Your task to perform on an android device: add a label to a message in the gmail app Image 0: 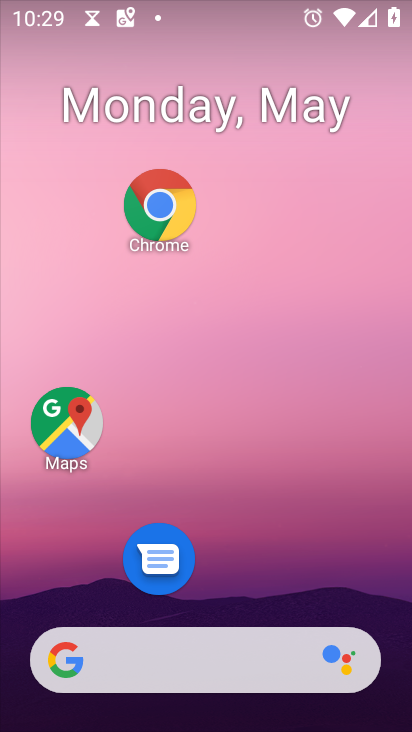
Step 0: drag from (248, 714) to (143, 244)
Your task to perform on an android device: add a label to a message in the gmail app Image 1: 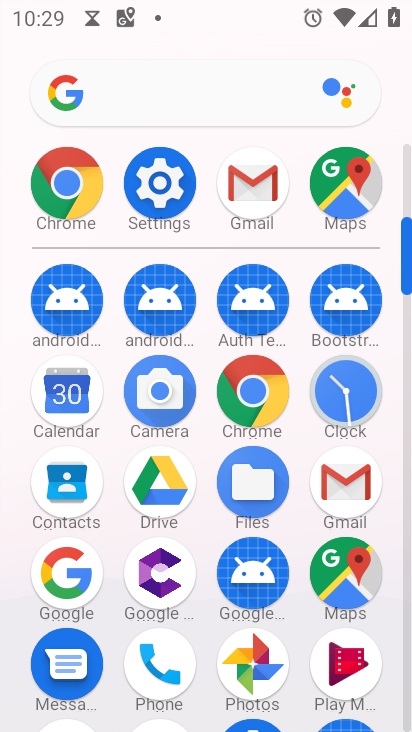
Step 1: click (406, 331)
Your task to perform on an android device: add a label to a message in the gmail app Image 2: 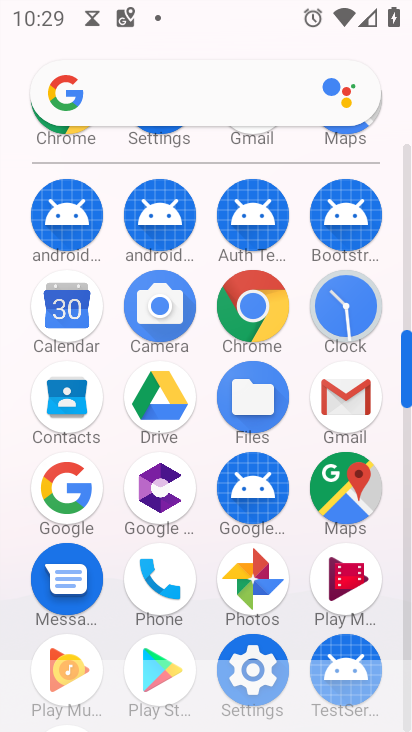
Step 2: click (347, 406)
Your task to perform on an android device: add a label to a message in the gmail app Image 3: 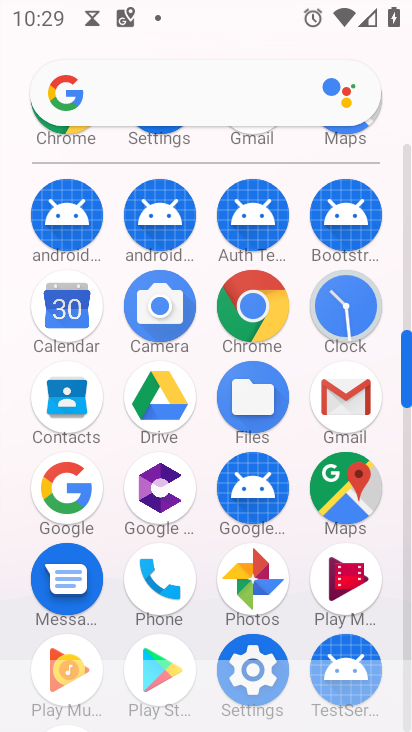
Step 3: click (347, 406)
Your task to perform on an android device: add a label to a message in the gmail app Image 4: 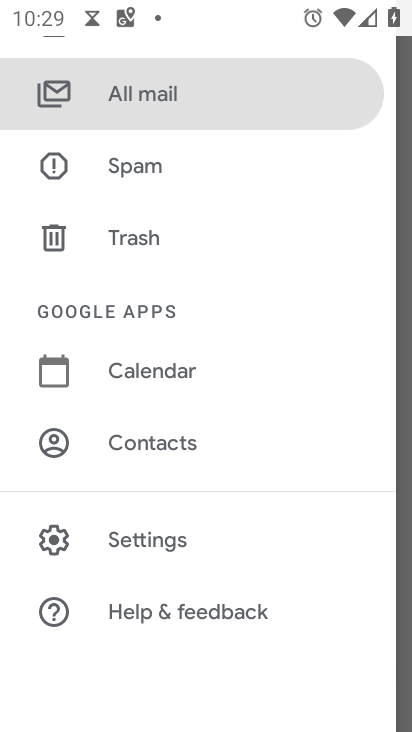
Step 4: press back button
Your task to perform on an android device: add a label to a message in the gmail app Image 5: 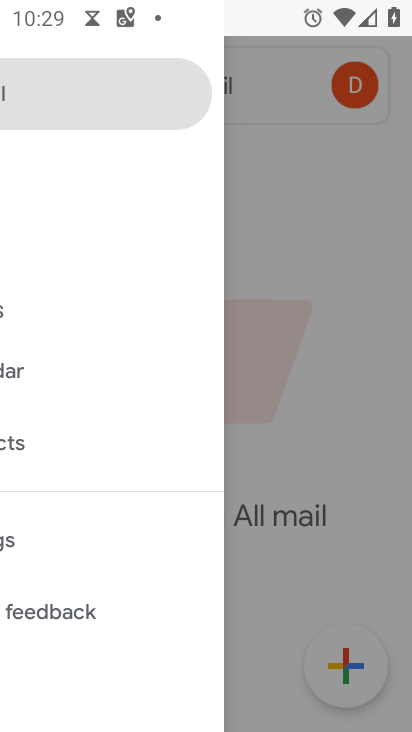
Step 5: press back button
Your task to perform on an android device: add a label to a message in the gmail app Image 6: 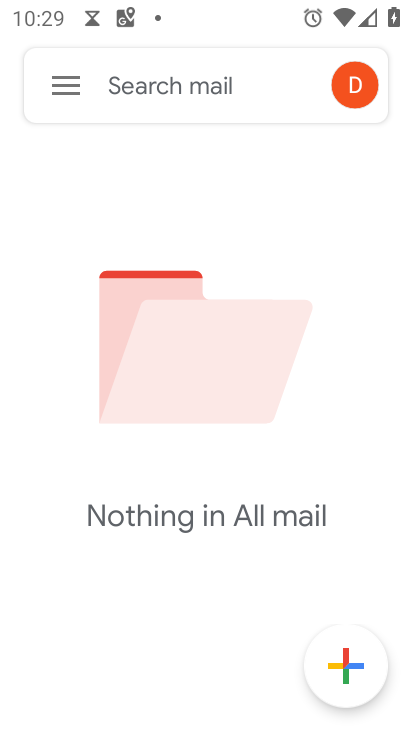
Step 6: press back button
Your task to perform on an android device: add a label to a message in the gmail app Image 7: 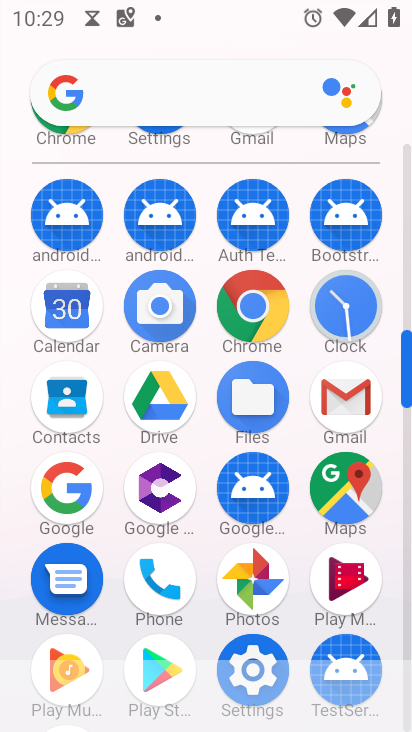
Step 7: press home button
Your task to perform on an android device: add a label to a message in the gmail app Image 8: 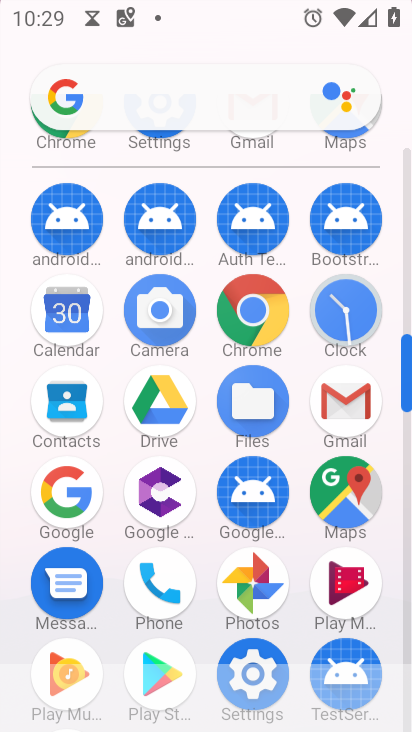
Step 8: press home button
Your task to perform on an android device: add a label to a message in the gmail app Image 9: 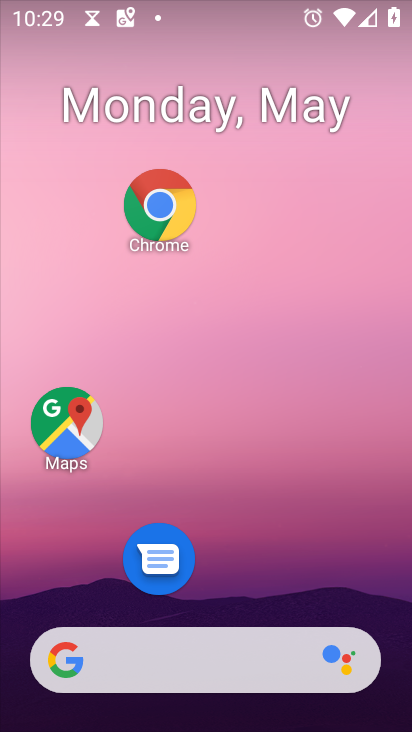
Step 9: drag from (215, 463) to (131, 153)
Your task to perform on an android device: add a label to a message in the gmail app Image 10: 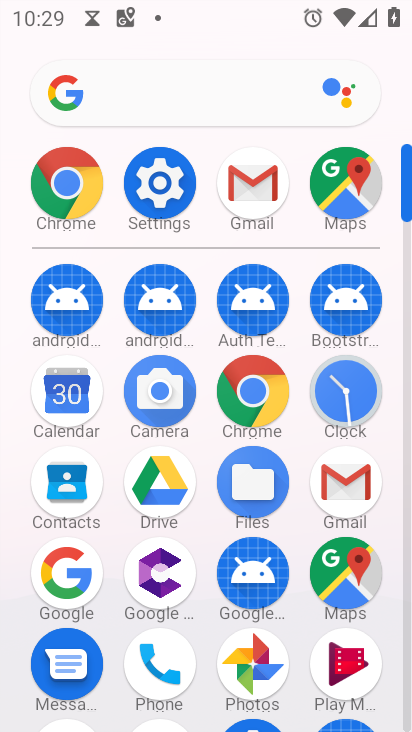
Step 10: click (341, 498)
Your task to perform on an android device: add a label to a message in the gmail app Image 11: 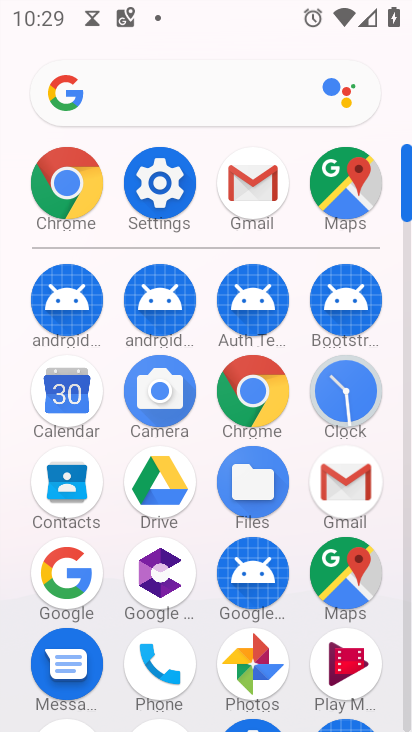
Step 11: click (342, 497)
Your task to perform on an android device: add a label to a message in the gmail app Image 12: 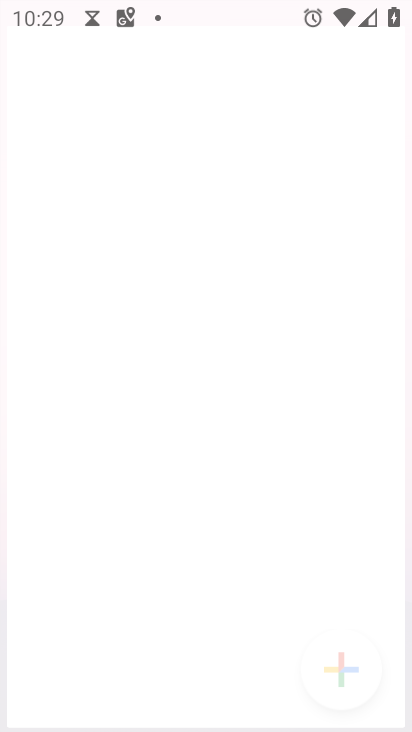
Step 12: click (342, 496)
Your task to perform on an android device: add a label to a message in the gmail app Image 13: 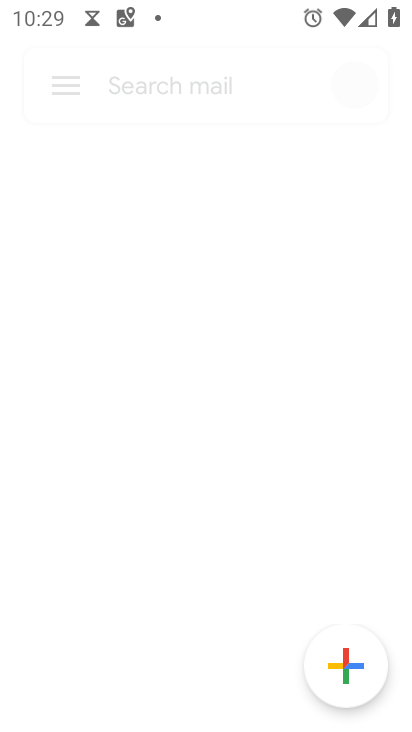
Step 13: click (343, 495)
Your task to perform on an android device: add a label to a message in the gmail app Image 14: 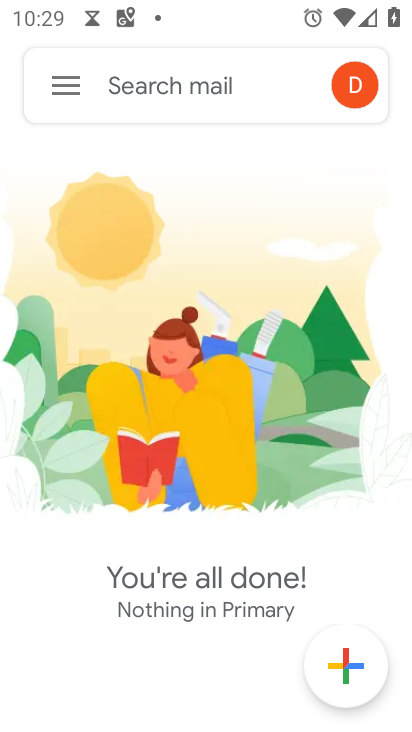
Step 14: click (65, 94)
Your task to perform on an android device: add a label to a message in the gmail app Image 15: 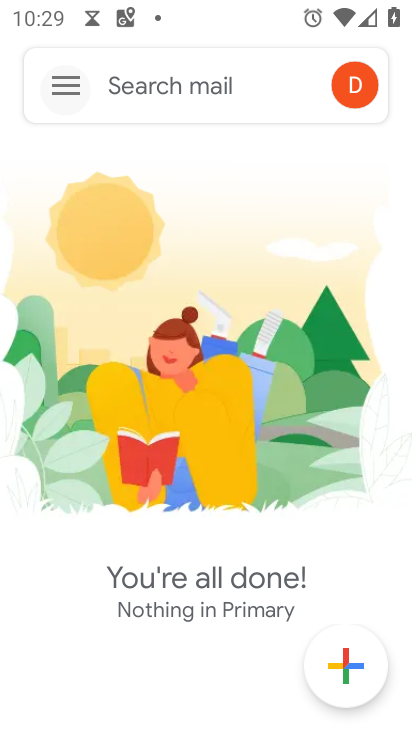
Step 15: click (66, 91)
Your task to perform on an android device: add a label to a message in the gmail app Image 16: 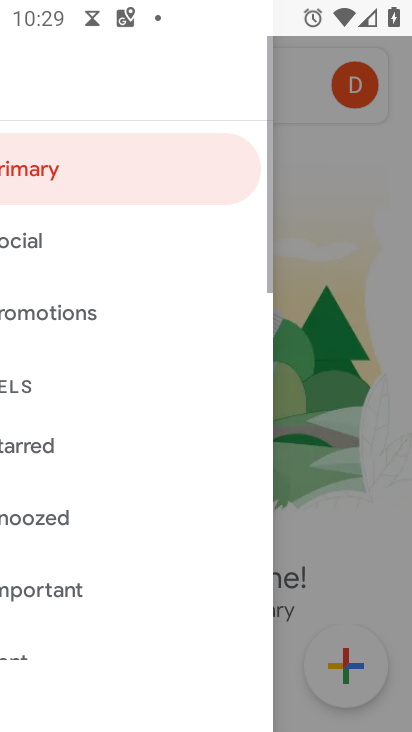
Step 16: click (66, 91)
Your task to perform on an android device: add a label to a message in the gmail app Image 17: 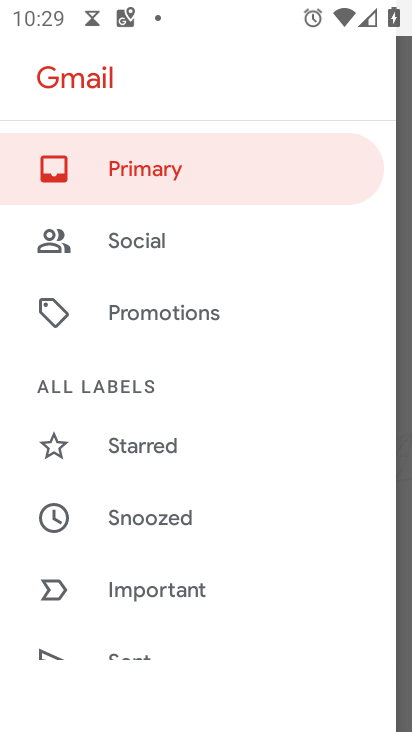
Step 17: drag from (149, 578) to (124, 211)
Your task to perform on an android device: add a label to a message in the gmail app Image 18: 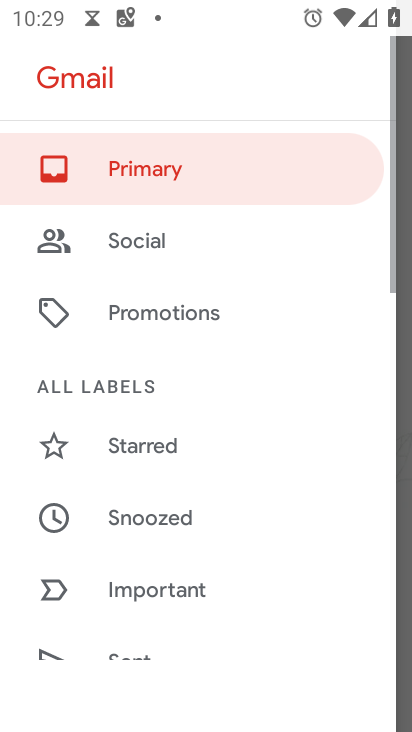
Step 18: drag from (163, 435) to (159, 129)
Your task to perform on an android device: add a label to a message in the gmail app Image 19: 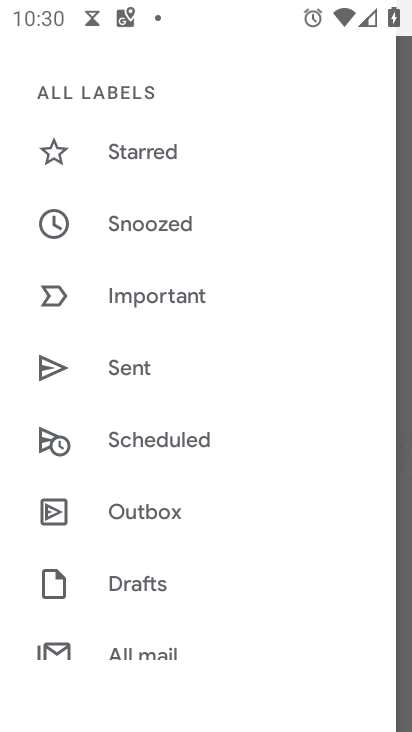
Step 19: drag from (188, 563) to (178, 254)
Your task to perform on an android device: add a label to a message in the gmail app Image 20: 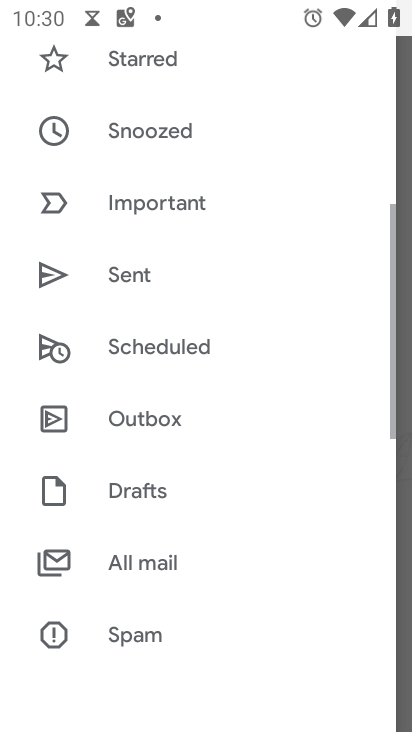
Step 20: drag from (179, 488) to (176, 219)
Your task to perform on an android device: add a label to a message in the gmail app Image 21: 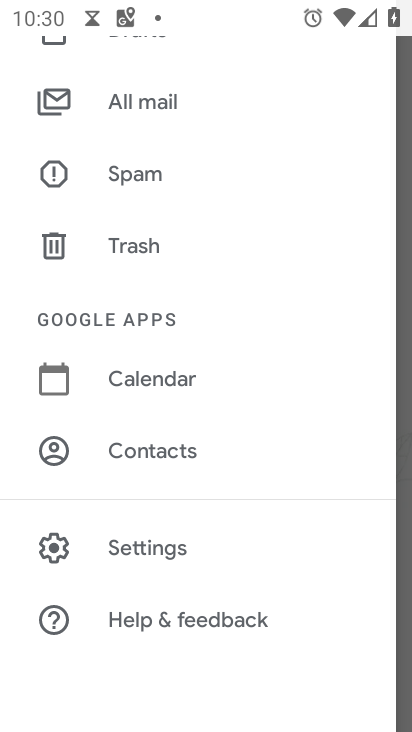
Step 21: click (143, 109)
Your task to perform on an android device: add a label to a message in the gmail app Image 22: 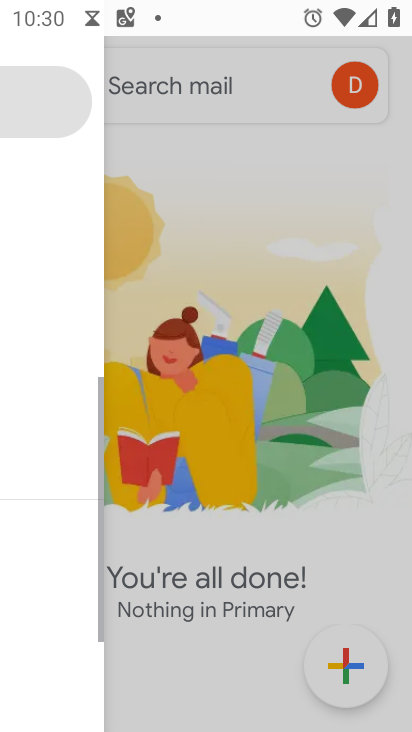
Step 22: click (146, 112)
Your task to perform on an android device: add a label to a message in the gmail app Image 23: 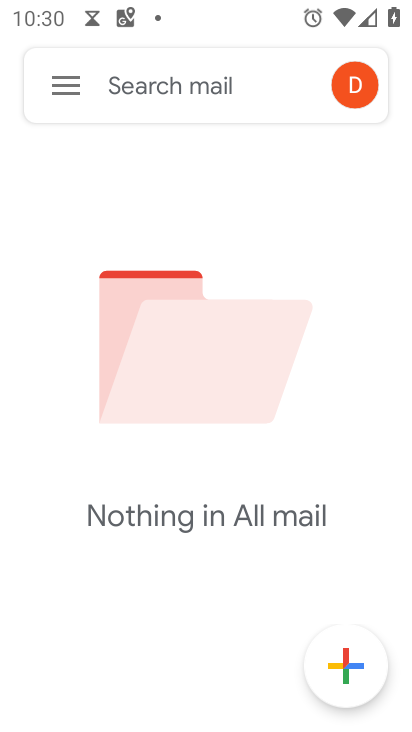
Step 23: task complete